Your task to perform on an android device: Open calendar and show me the fourth week of next month Image 0: 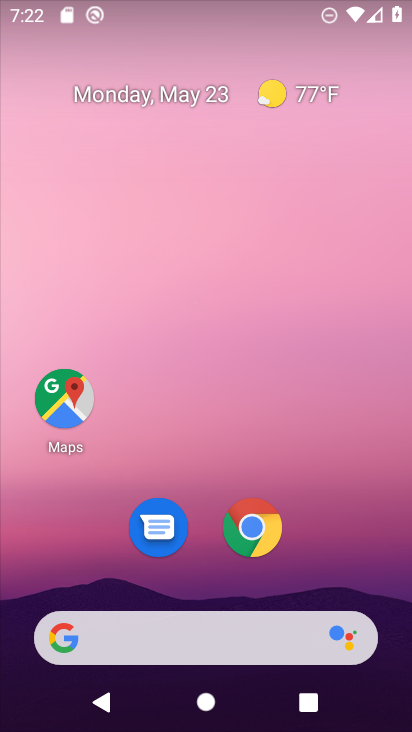
Step 0: press home button
Your task to perform on an android device: Open calendar and show me the fourth week of next month Image 1: 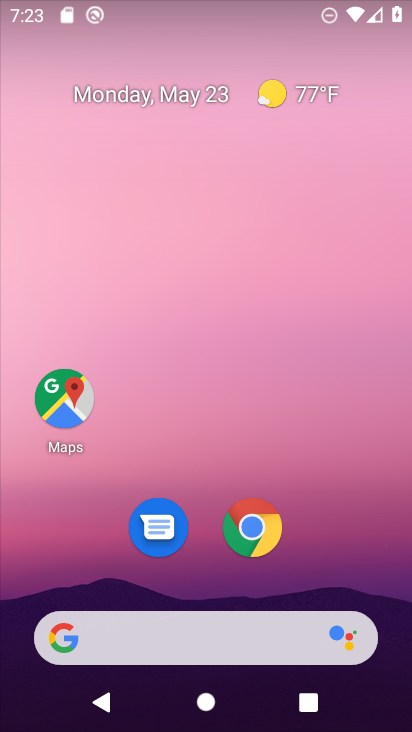
Step 1: drag from (239, 672) to (295, 129)
Your task to perform on an android device: Open calendar and show me the fourth week of next month Image 2: 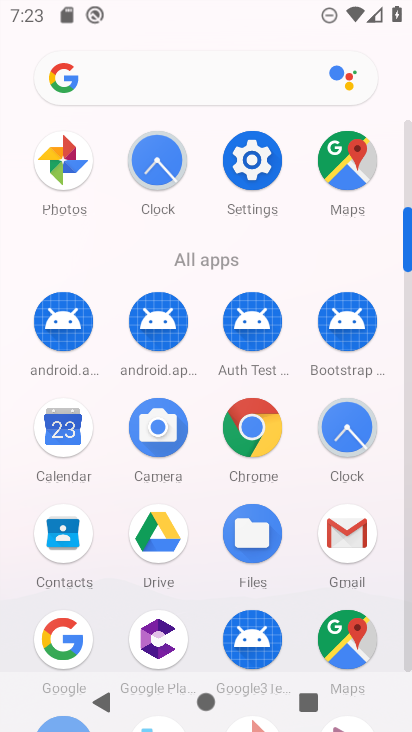
Step 2: click (76, 432)
Your task to perform on an android device: Open calendar and show me the fourth week of next month Image 3: 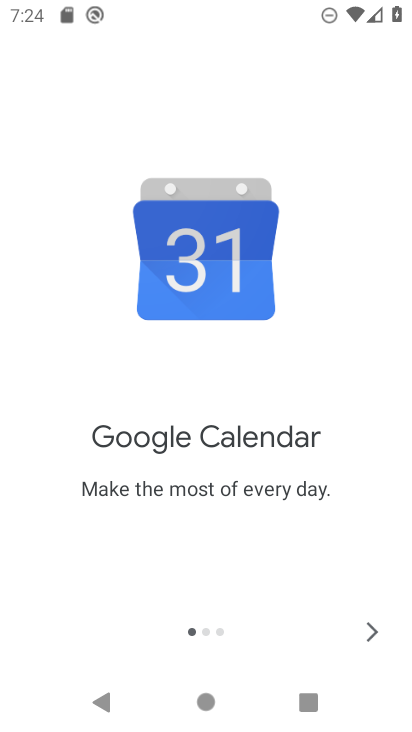
Step 3: click (369, 633)
Your task to perform on an android device: Open calendar and show me the fourth week of next month Image 4: 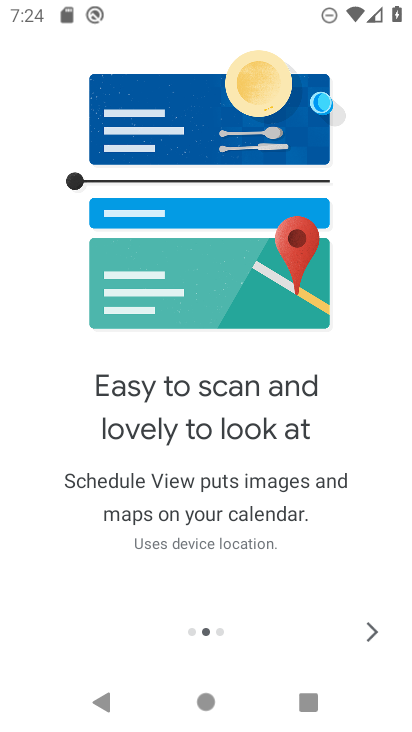
Step 4: click (351, 634)
Your task to perform on an android device: Open calendar and show me the fourth week of next month Image 5: 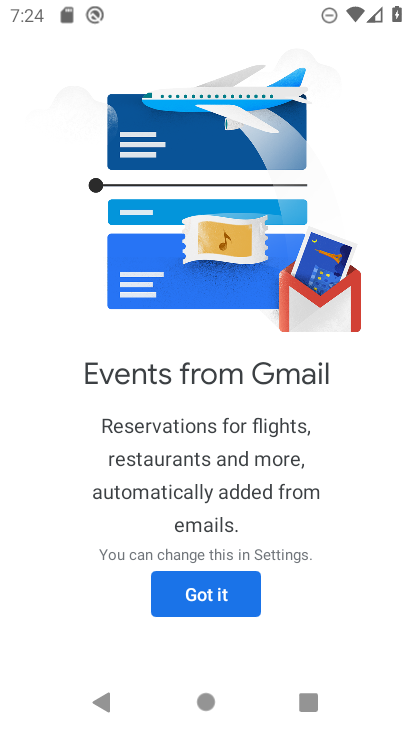
Step 5: click (211, 584)
Your task to perform on an android device: Open calendar and show me the fourth week of next month Image 6: 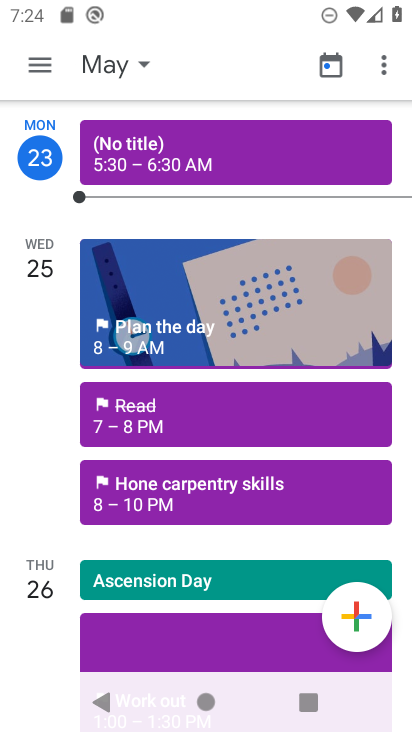
Step 6: click (60, 64)
Your task to perform on an android device: Open calendar and show me the fourth week of next month Image 7: 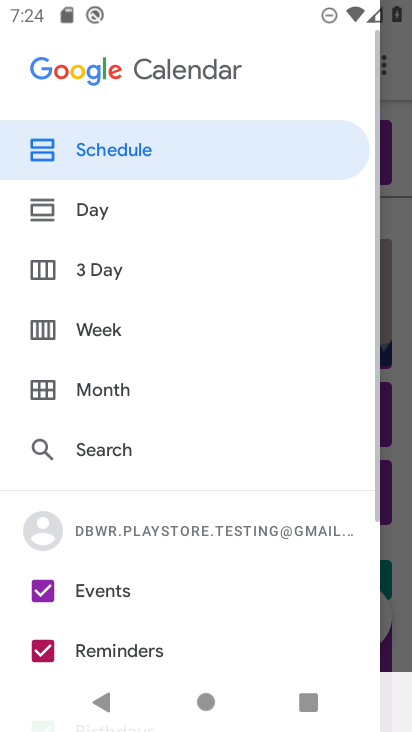
Step 7: click (120, 394)
Your task to perform on an android device: Open calendar and show me the fourth week of next month Image 8: 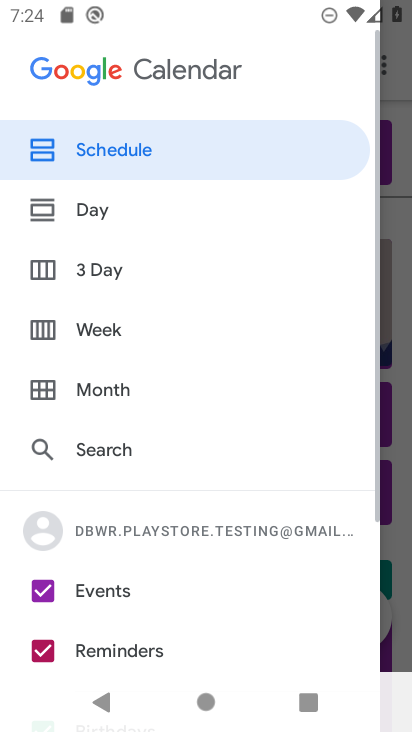
Step 8: click (149, 389)
Your task to perform on an android device: Open calendar and show me the fourth week of next month Image 9: 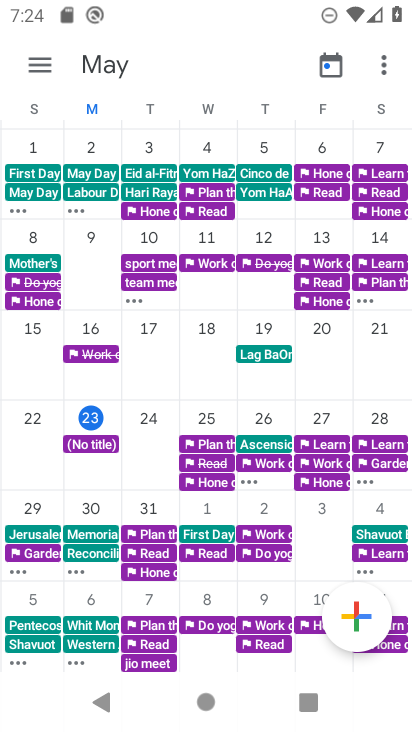
Step 9: drag from (377, 392) to (37, 382)
Your task to perform on an android device: Open calendar and show me the fourth week of next month Image 10: 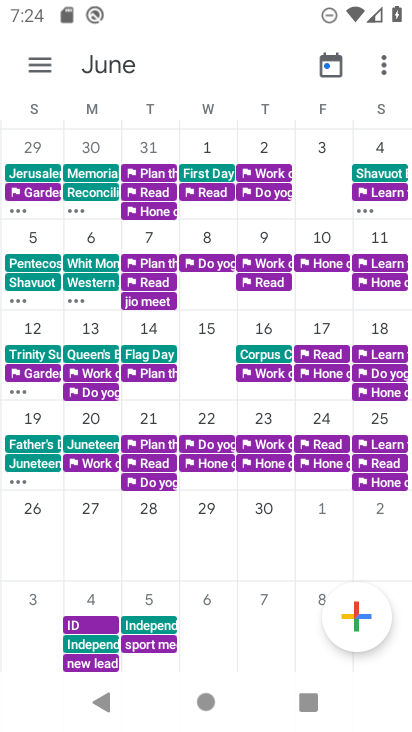
Step 10: click (91, 425)
Your task to perform on an android device: Open calendar and show me the fourth week of next month Image 11: 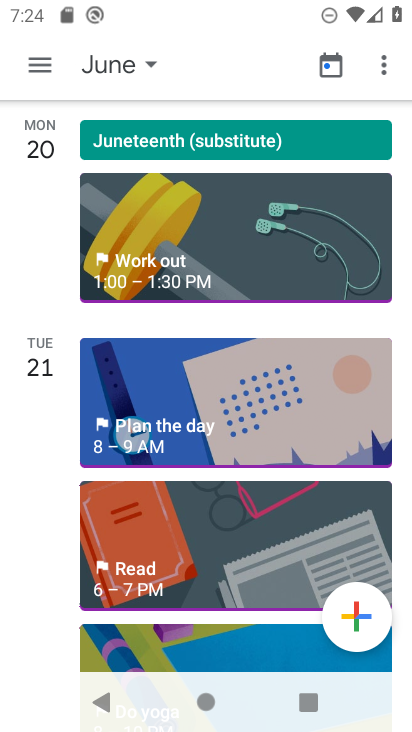
Step 11: task complete